Your task to perform on an android device: Go to eBay Image 0: 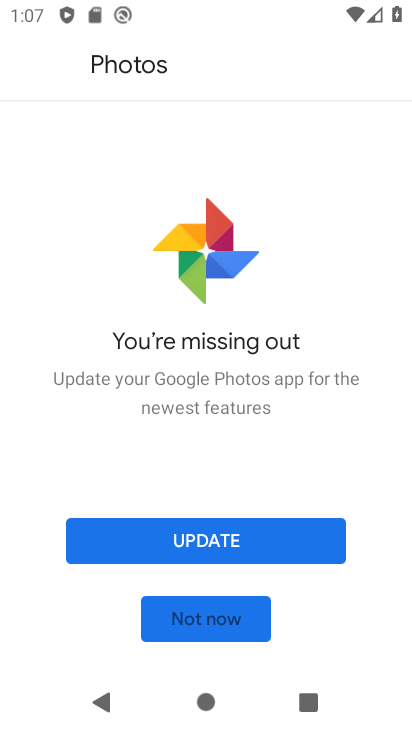
Step 0: press home button
Your task to perform on an android device: Go to eBay Image 1: 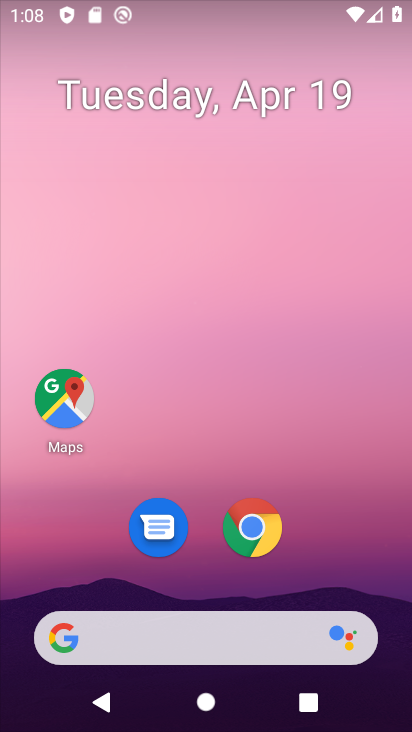
Step 1: click (316, 568)
Your task to perform on an android device: Go to eBay Image 2: 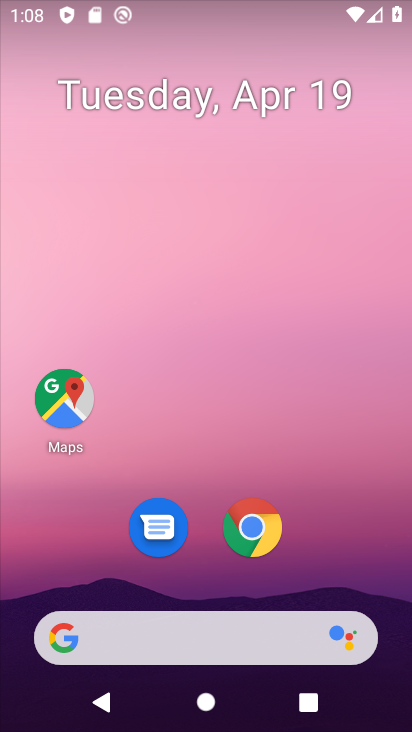
Step 2: drag from (286, 603) to (292, 52)
Your task to perform on an android device: Go to eBay Image 3: 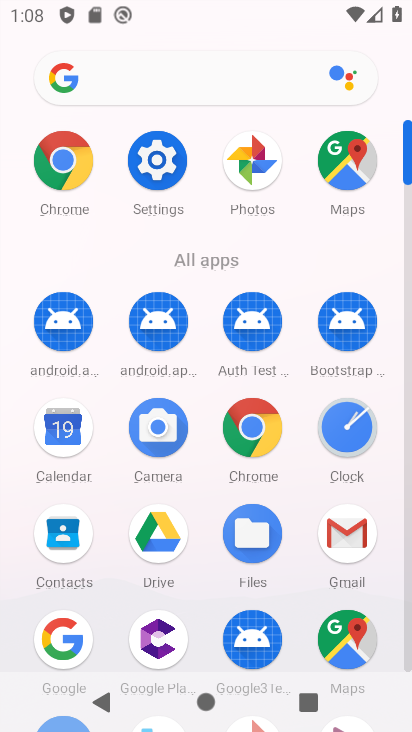
Step 3: click (71, 163)
Your task to perform on an android device: Go to eBay Image 4: 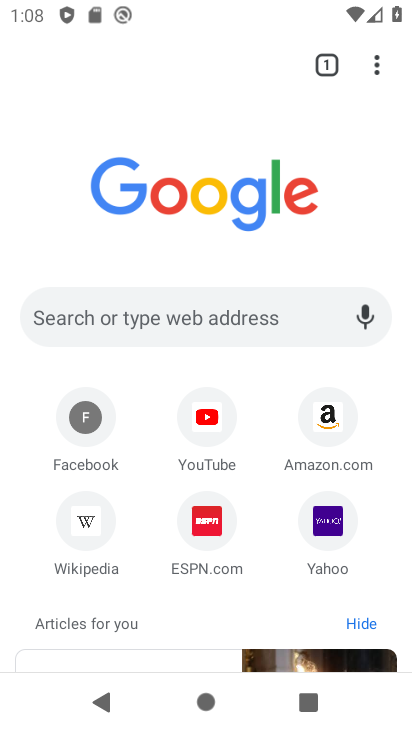
Step 4: click (226, 311)
Your task to perform on an android device: Go to eBay Image 5: 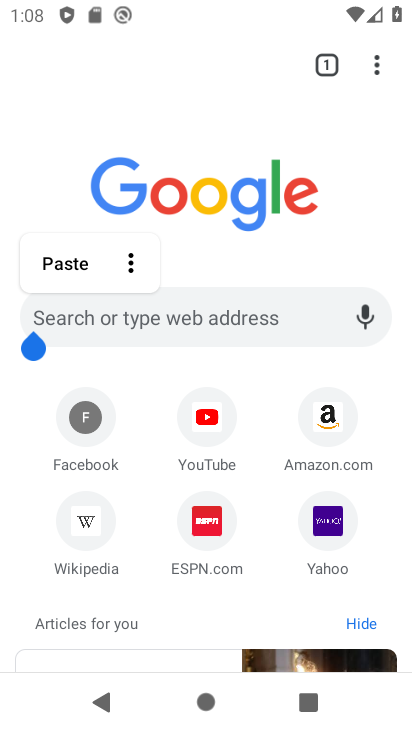
Step 5: click (169, 312)
Your task to perform on an android device: Go to eBay Image 6: 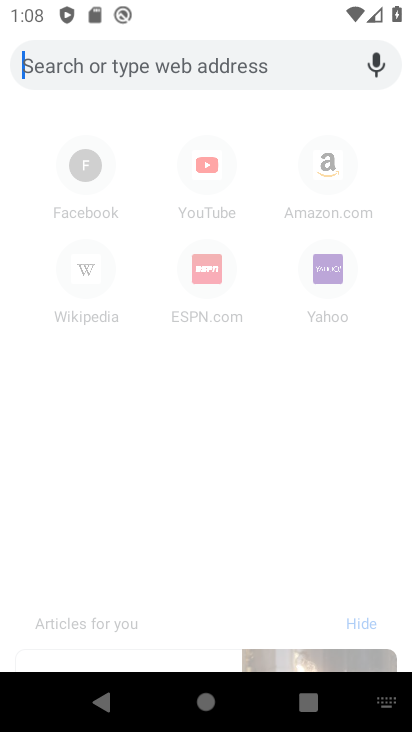
Step 6: type "ebay"
Your task to perform on an android device: Go to eBay Image 7: 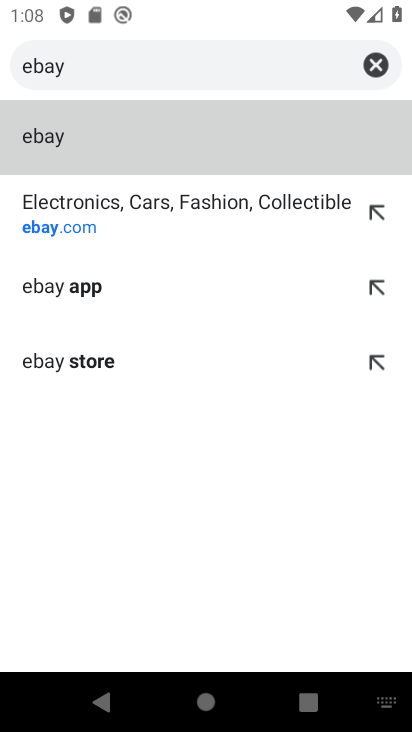
Step 7: click (114, 146)
Your task to perform on an android device: Go to eBay Image 8: 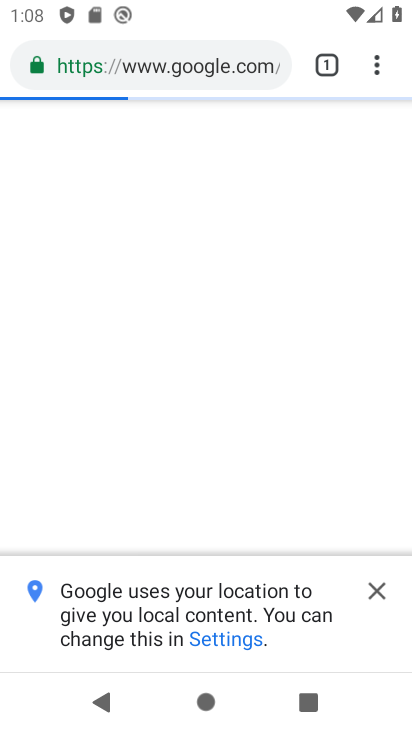
Step 8: click (114, 143)
Your task to perform on an android device: Go to eBay Image 9: 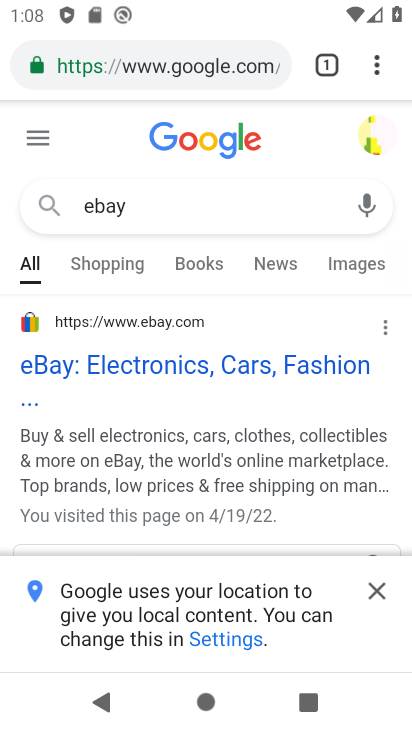
Step 9: click (146, 355)
Your task to perform on an android device: Go to eBay Image 10: 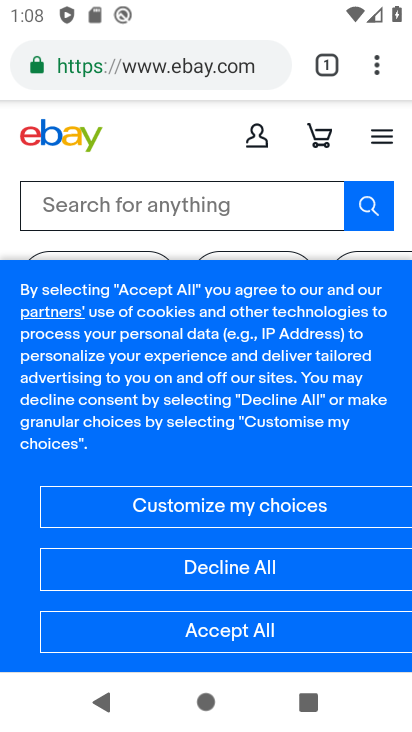
Step 10: task complete